Your task to perform on an android device: clear history in the chrome app Image 0: 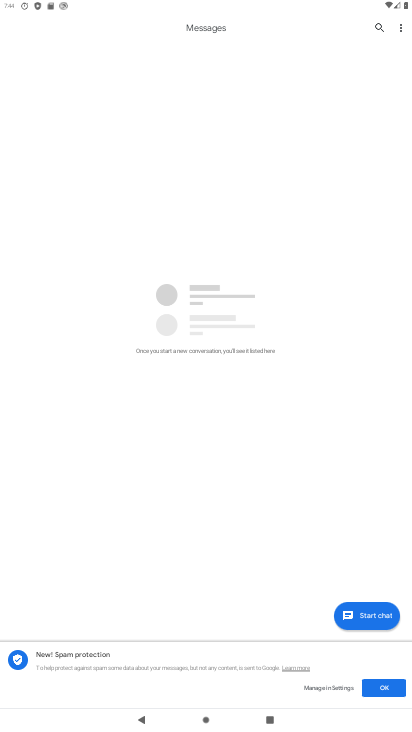
Step 0: press home button
Your task to perform on an android device: clear history in the chrome app Image 1: 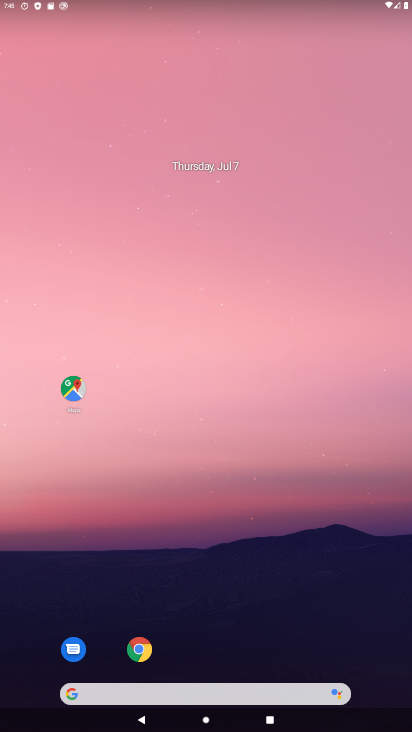
Step 1: click (136, 646)
Your task to perform on an android device: clear history in the chrome app Image 2: 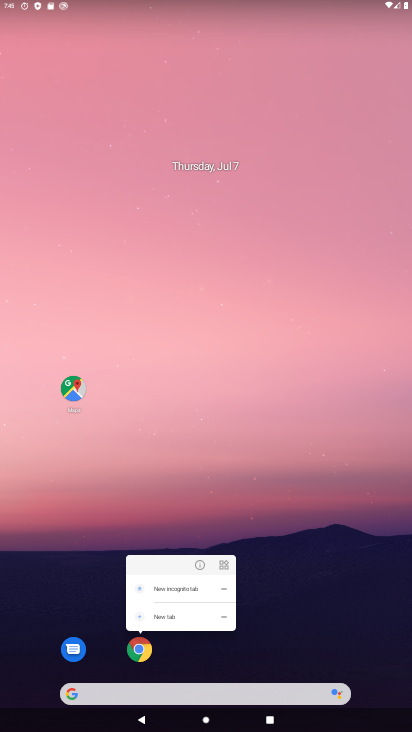
Step 2: click (136, 646)
Your task to perform on an android device: clear history in the chrome app Image 3: 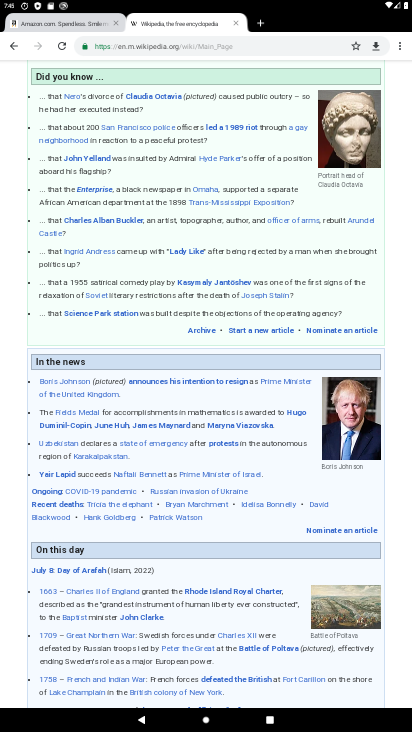
Step 3: click (401, 44)
Your task to perform on an android device: clear history in the chrome app Image 4: 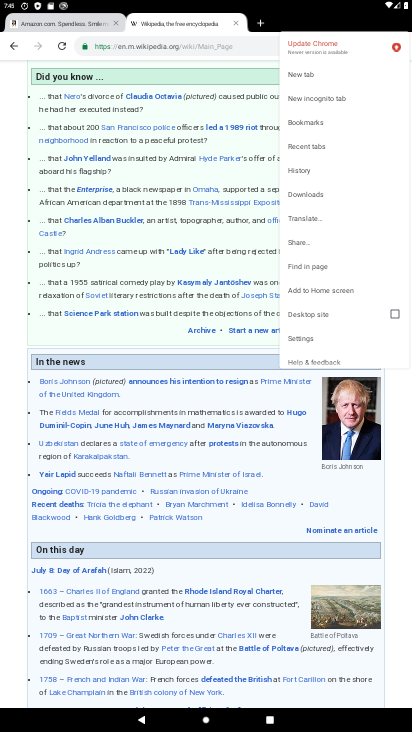
Step 4: click (314, 168)
Your task to perform on an android device: clear history in the chrome app Image 5: 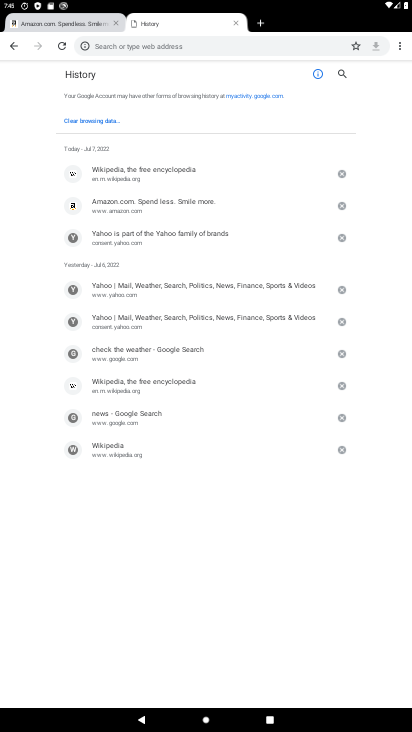
Step 5: click (92, 118)
Your task to perform on an android device: clear history in the chrome app Image 6: 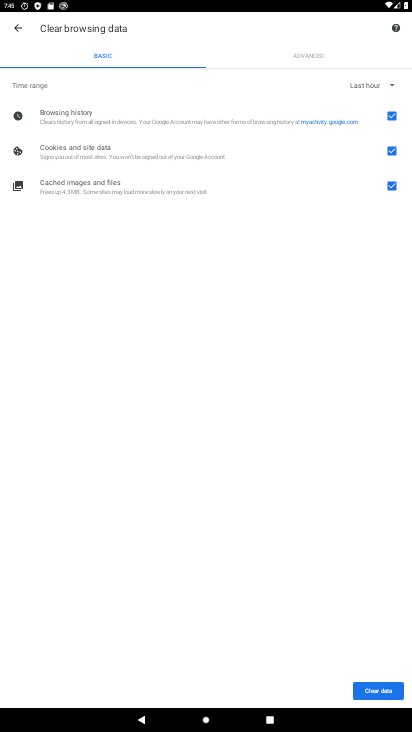
Step 6: click (390, 85)
Your task to perform on an android device: clear history in the chrome app Image 7: 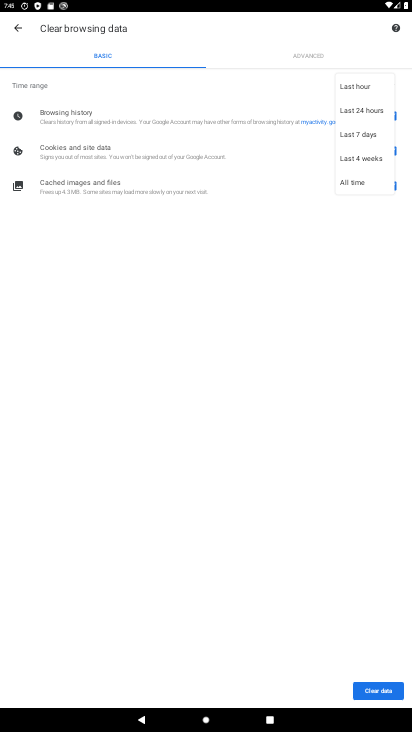
Step 7: click (360, 185)
Your task to perform on an android device: clear history in the chrome app Image 8: 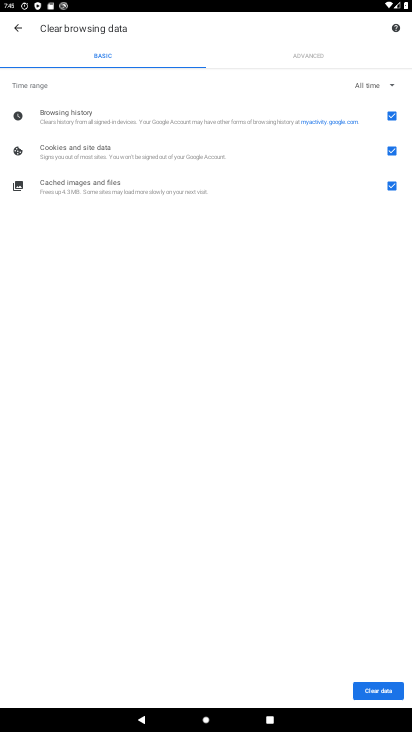
Step 8: click (374, 688)
Your task to perform on an android device: clear history in the chrome app Image 9: 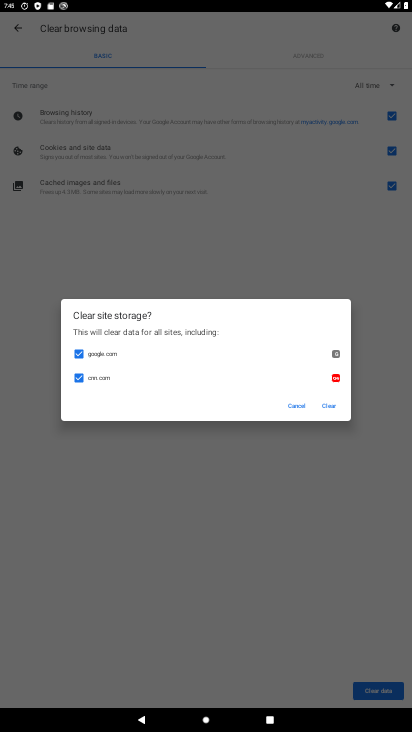
Step 9: click (325, 402)
Your task to perform on an android device: clear history in the chrome app Image 10: 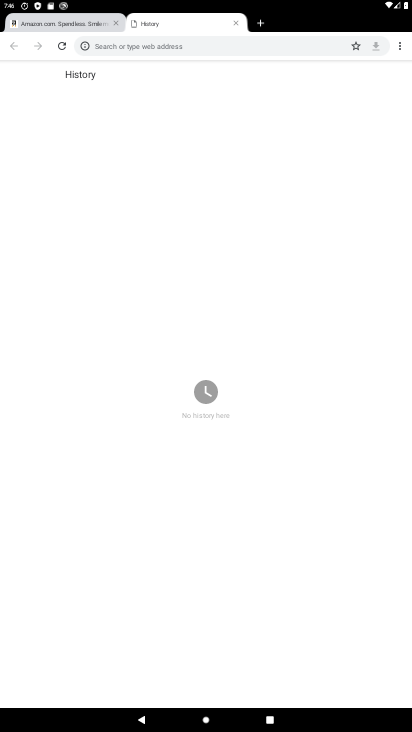
Step 10: task complete